Your task to perform on an android device: find photos in the google photos app Image 0: 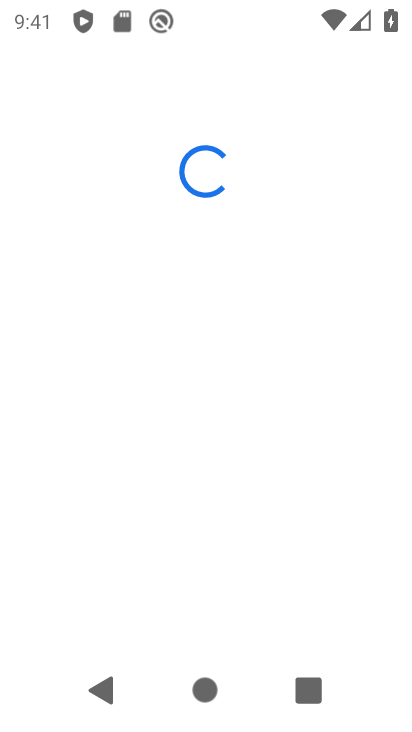
Step 0: press home button
Your task to perform on an android device: find photos in the google photos app Image 1: 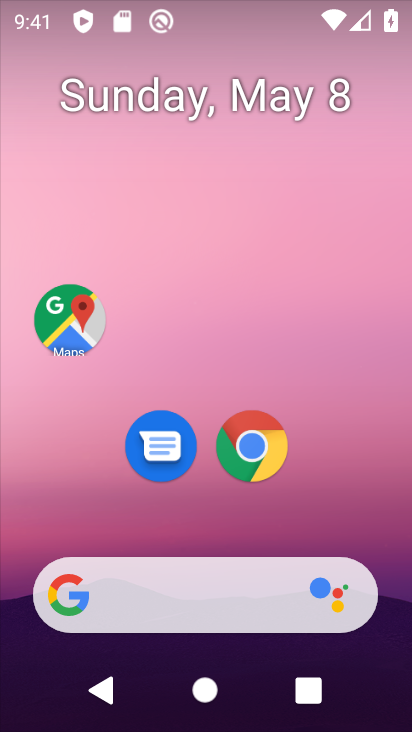
Step 1: drag from (213, 514) to (194, 19)
Your task to perform on an android device: find photos in the google photos app Image 2: 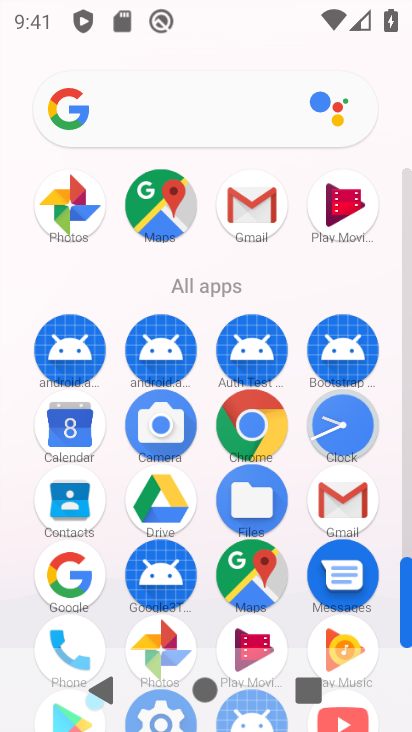
Step 2: click (162, 628)
Your task to perform on an android device: find photos in the google photos app Image 3: 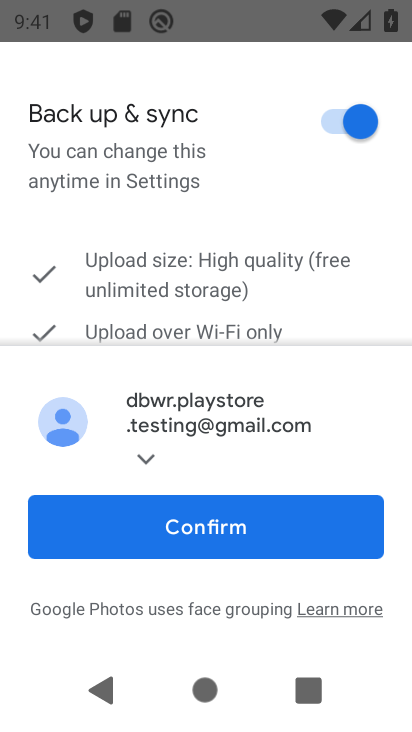
Step 3: click (201, 529)
Your task to perform on an android device: find photos in the google photos app Image 4: 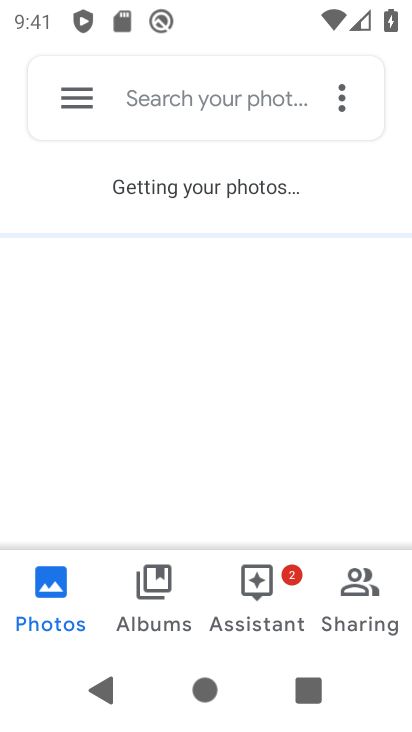
Step 4: click (49, 577)
Your task to perform on an android device: find photos in the google photos app Image 5: 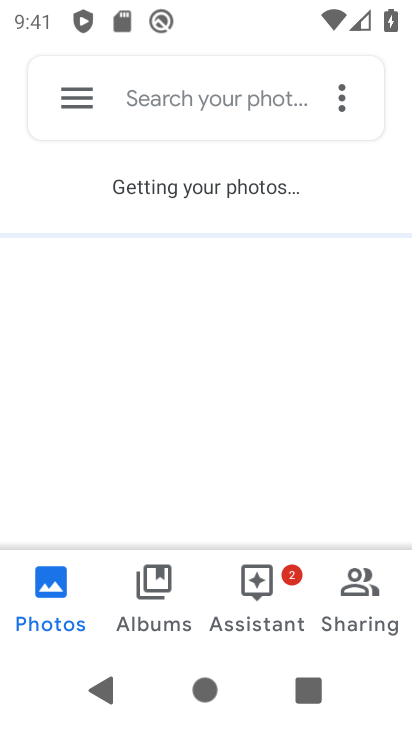
Step 5: task complete